Your task to perform on an android device: Open eBay Image 0: 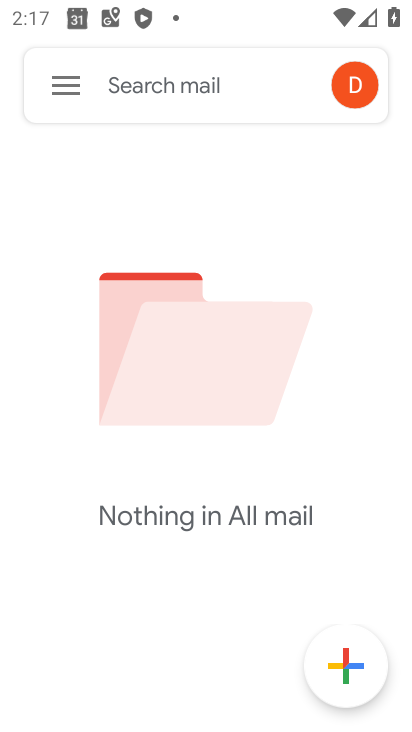
Step 0: press home button
Your task to perform on an android device: Open eBay Image 1: 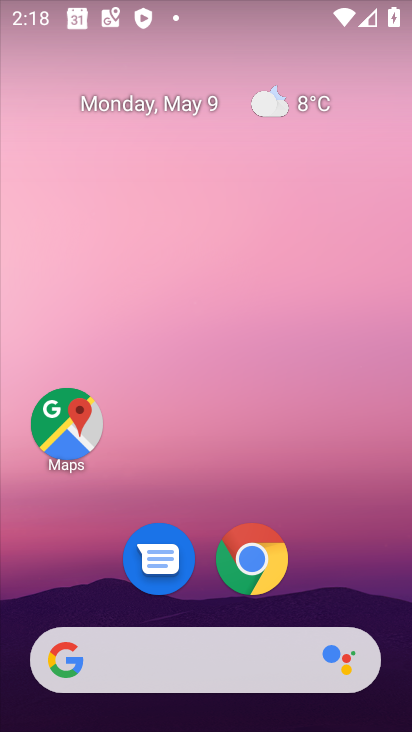
Step 1: click (258, 559)
Your task to perform on an android device: Open eBay Image 2: 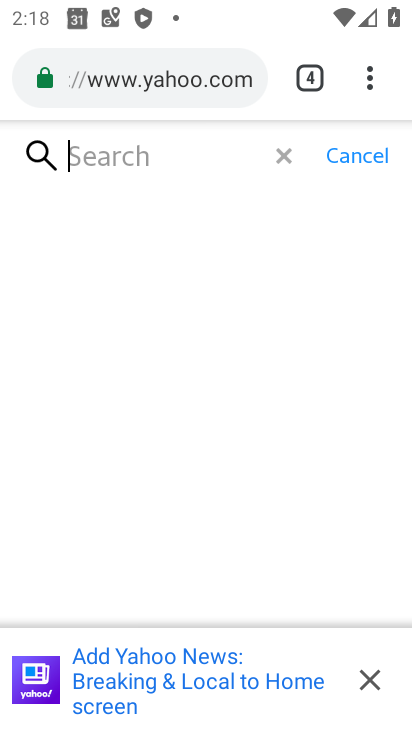
Step 2: click (367, 79)
Your task to perform on an android device: Open eBay Image 3: 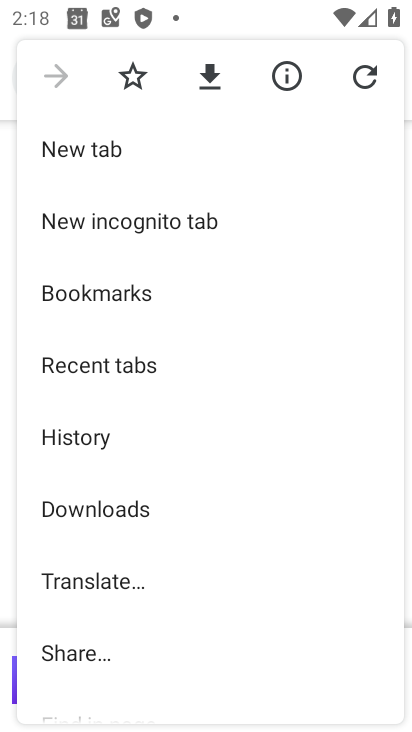
Step 3: click (88, 148)
Your task to perform on an android device: Open eBay Image 4: 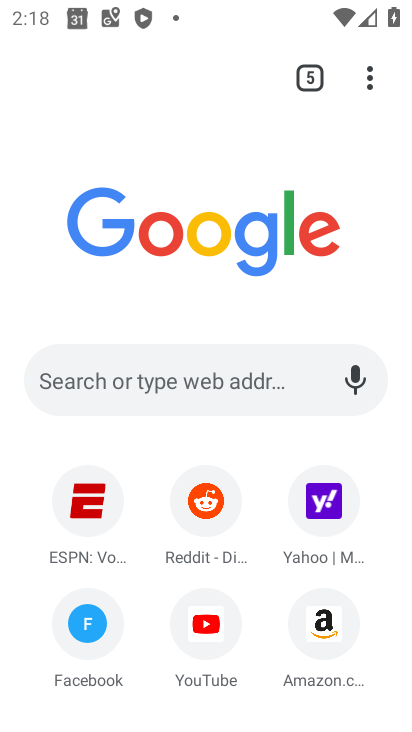
Step 4: click (158, 371)
Your task to perform on an android device: Open eBay Image 5: 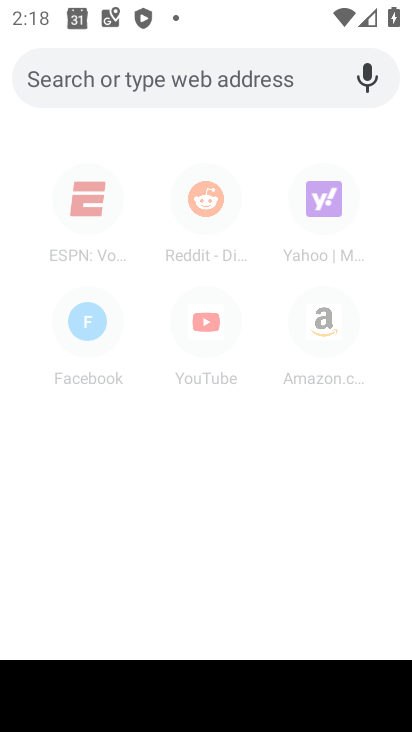
Step 5: type "ebay"
Your task to perform on an android device: Open eBay Image 6: 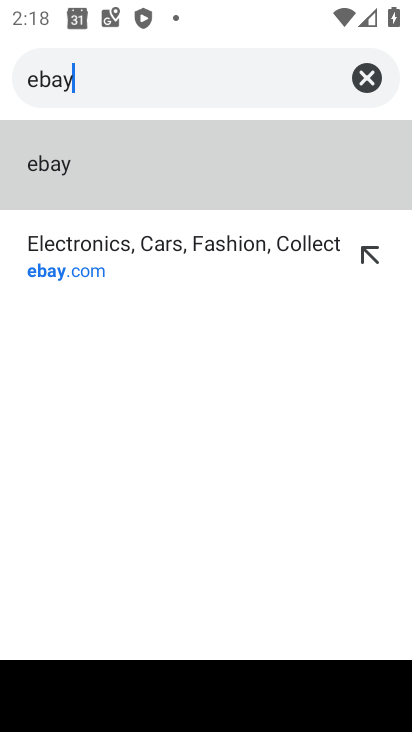
Step 6: click (96, 168)
Your task to perform on an android device: Open eBay Image 7: 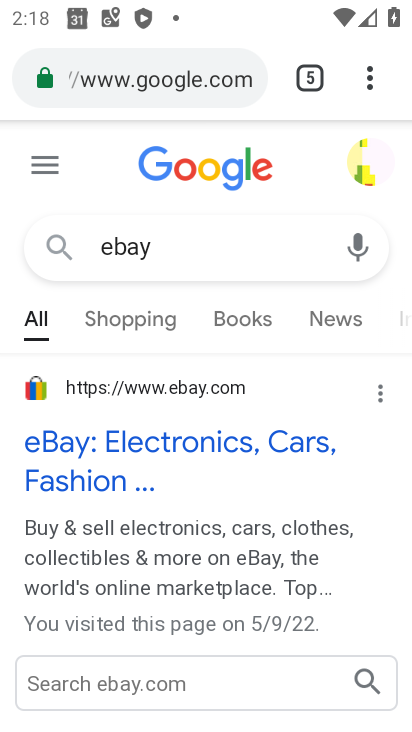
Step 7: task complete